Your task to perform on an android device: Go to Google maps Image 0: 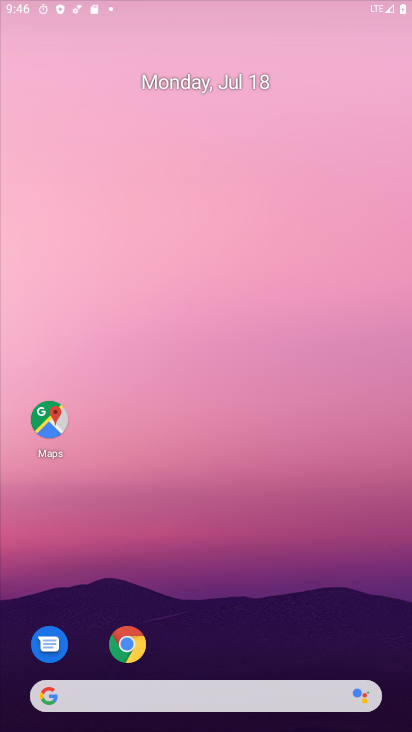
Step 0: press home button
Your task to perform on an android device: Go to Google maps Image 1: 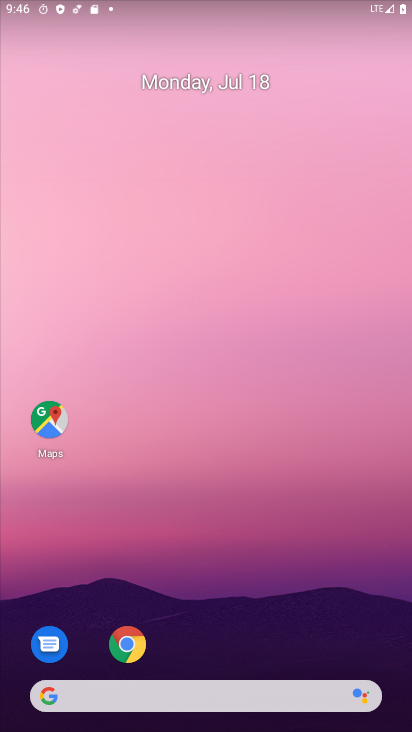
Step 1: click (52, 418)
Your task to perform on an android device: Go to Google maps Image 2: 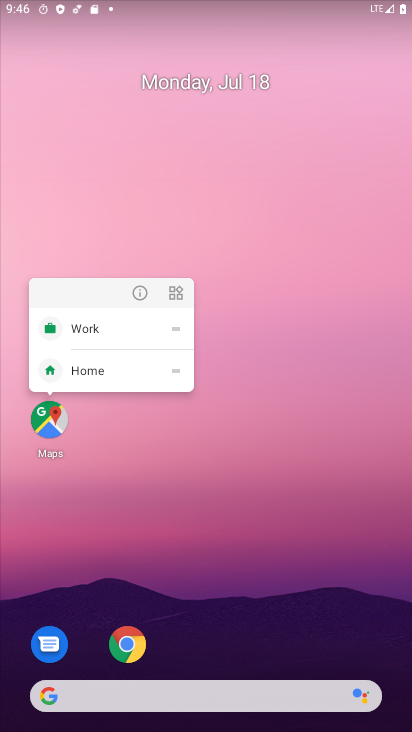
Step 2: click (52, 413)
Your task to perform on an android device: Go to Google maps Image 3: 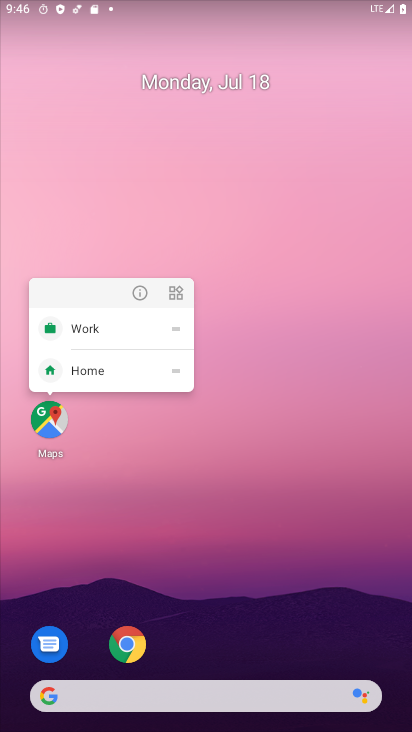
Step 3: click (46, 416)
Your task to perform on an android device: Go to Google maps Image 4: 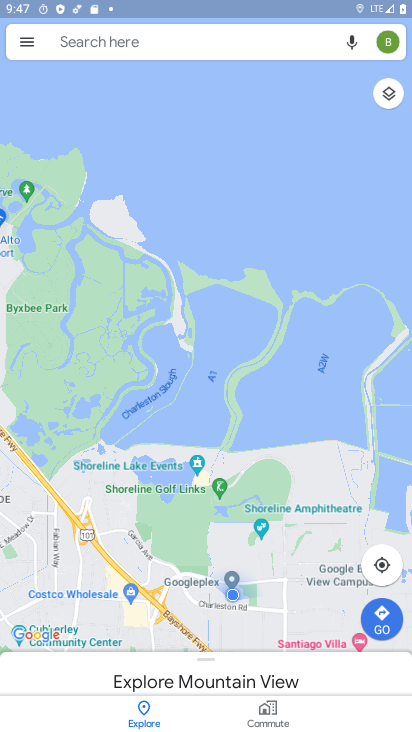
Step 4: task complete